Your task to perform on an android device: Go to sound settings Image 0: 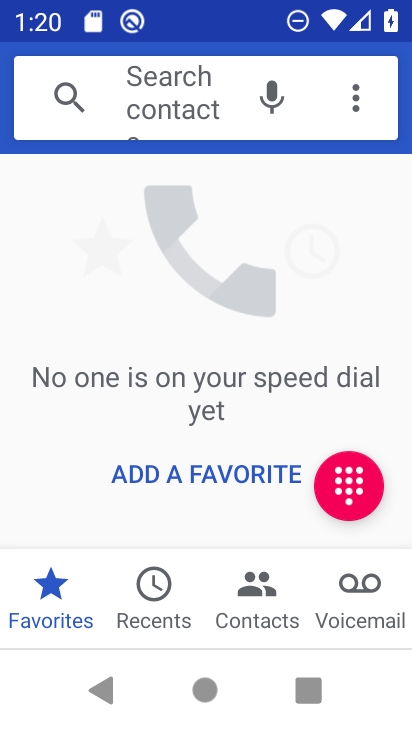
Step 0: press home button
Your task to perform on an android device: Go to sound settings Image 1: 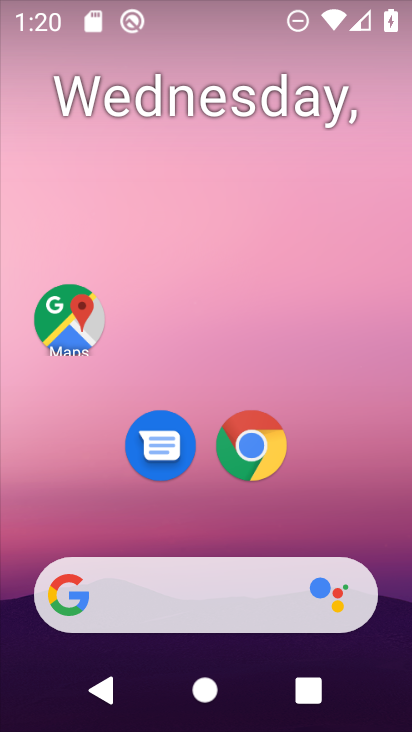
Step 1: drag from (398, 618) to (318, 74)
Your task to perform on an android device: Go to sound settings Image 2: 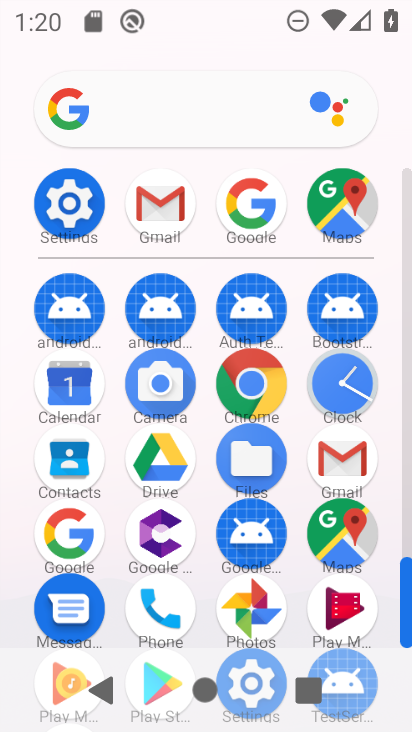
Step 2: click (87, 193)
Your task to perform on an android device: Go to sound settings Image 3: 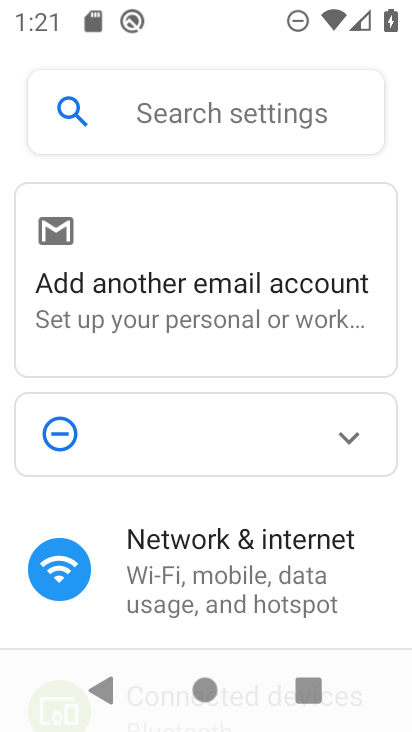
Step 3: drag from (259, 588) to (243, 64)
Your task to perform on an android device: Go to sound settings Image 4: 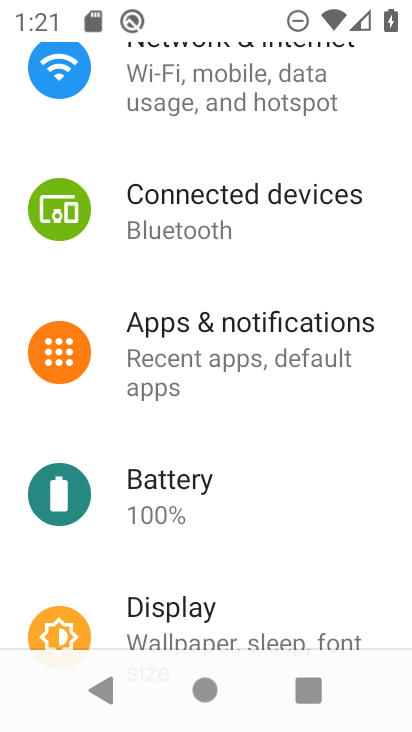
Step 4: drag from (236, 592) to (275, 100)
Your task to perform on an android device: Go to sound settings Image 5: 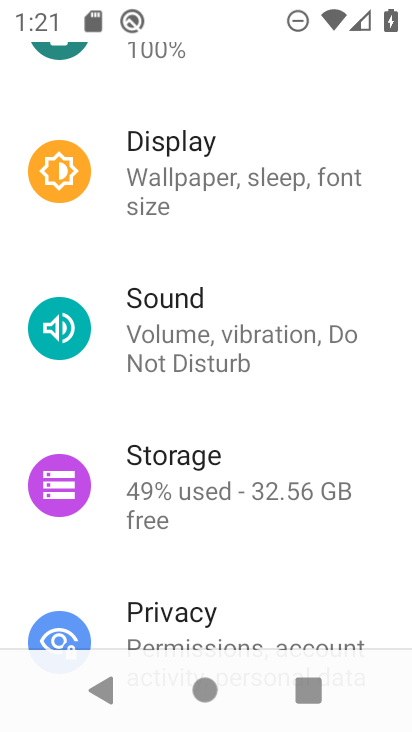
Step 5: click (234, 352)
Your task to perform on an android device: Go to sound settings Image 6: 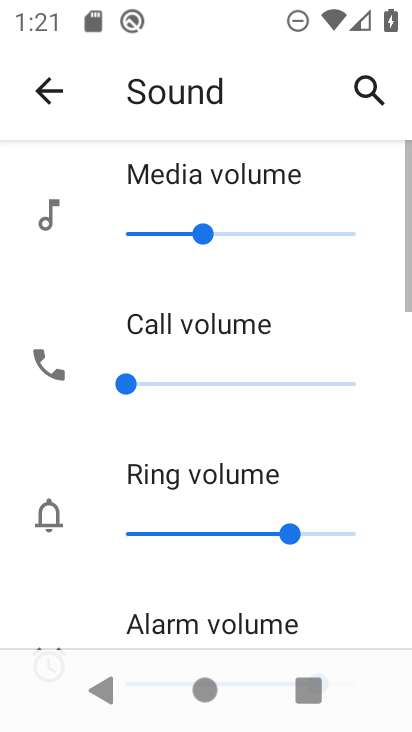
Step 6: task complete